Your task to perform on an android device: set the stopwatch Image 0: 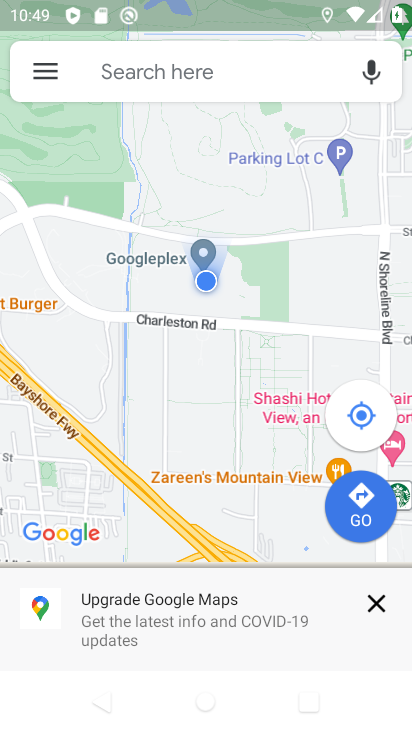
Step 0: press home button
Your task to perform on an android device: set the stopwatch Image 1: 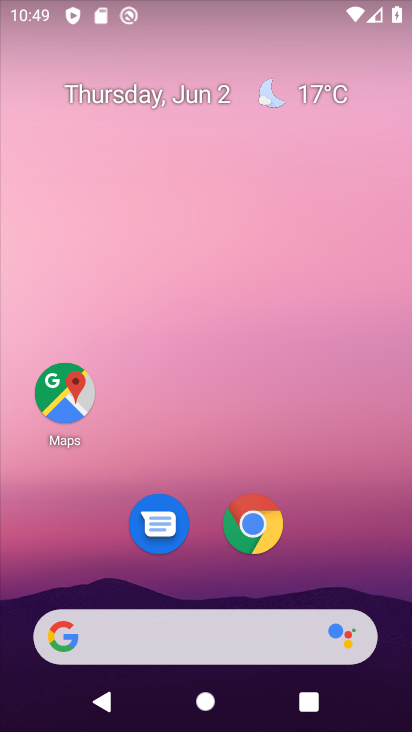
Step 1: drag from (314, 482) to (314, 9)
Your task to perform on an android device: set the stopwatch Image 2: 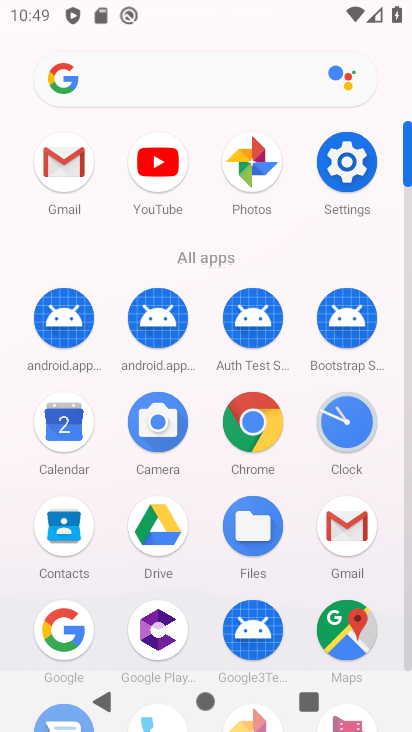
Step 2: click (346, 412)
Your task to perform on an android device: set the stopwatch Image 3: 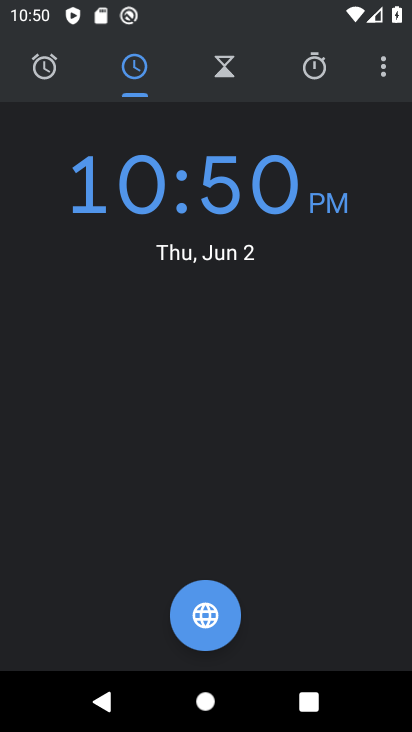
Step 3: click (310, 65)
Your task to perform on an android device: set the stopwatch Image 4: 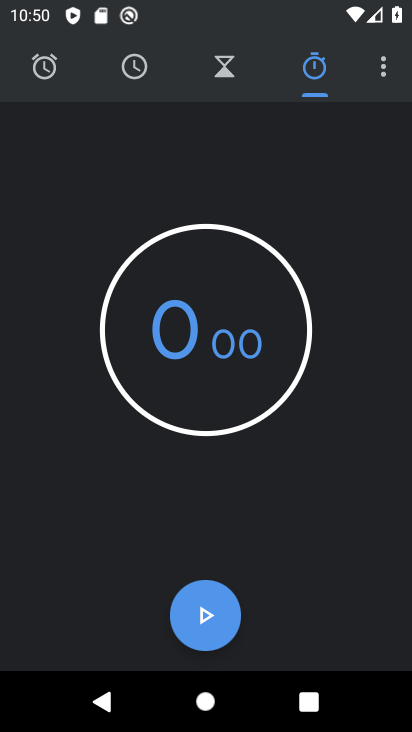
Step 4: task complete